Your task to perform on an android device: turn on translation in the chrome app Image 0: 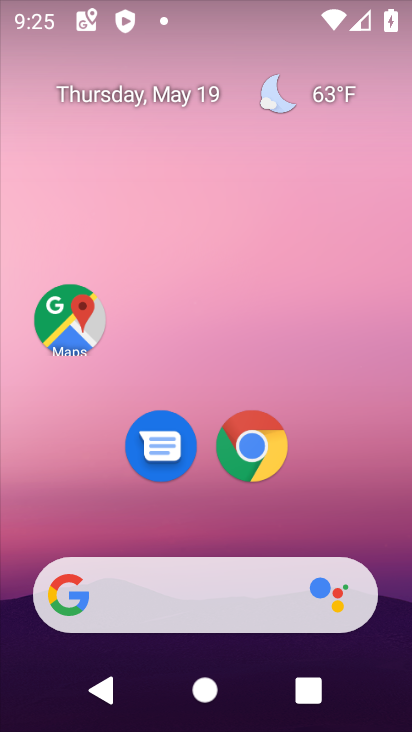
Step 0: click (255, 438)
Your task to perform on an android device: turn on translation in the chrome app Image 1: 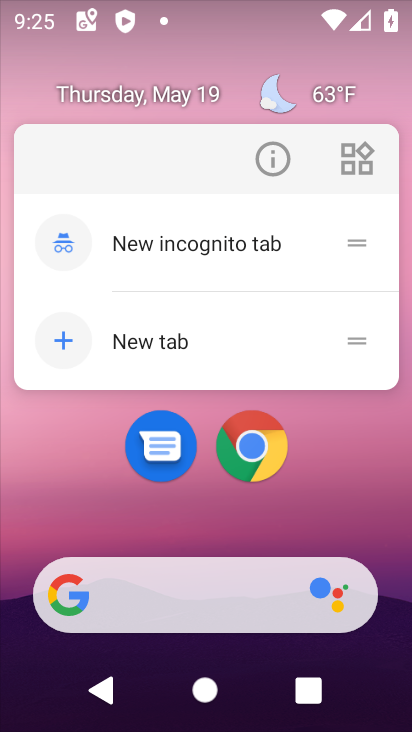
Step 1: click (250, 437)
Your task to perform on an android device: turn on translation in the chrome app Image 2: 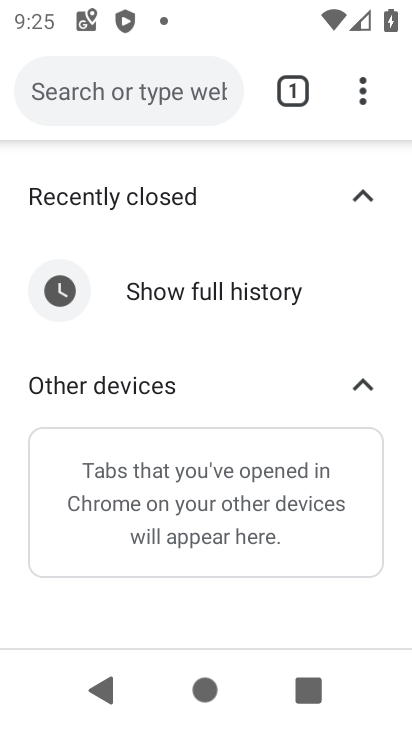
Step 2: click (365, 84)
Your task to perform on an android device: turn on translation in the chrome app Image 3: 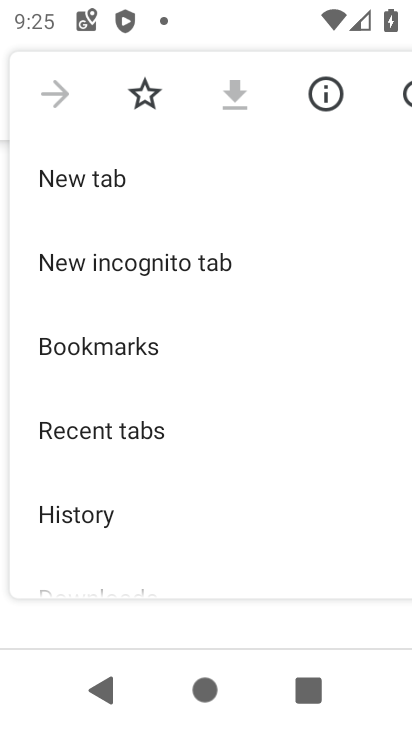
Step 3: drag from (111, 501) to (137, 231)
Your task to perform on an android device: turn on translation in the chrome app Image 4: 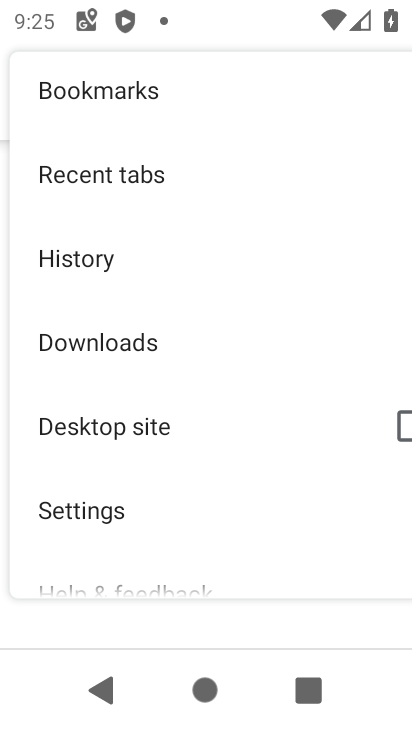
Step 4: click (97, 520)
Your task to perform on an android device: turn on translation in the chrome app Image 5: 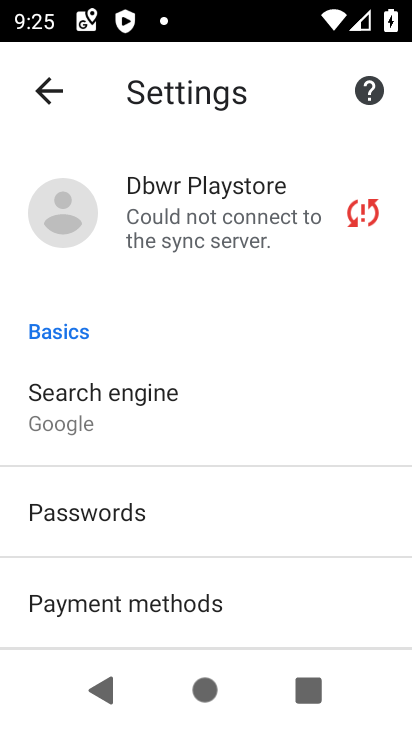
Step 5: drag from (208, 538) to (251, 150)
Your task to perform on an android device: turn on translation in the chrome app Image 6: 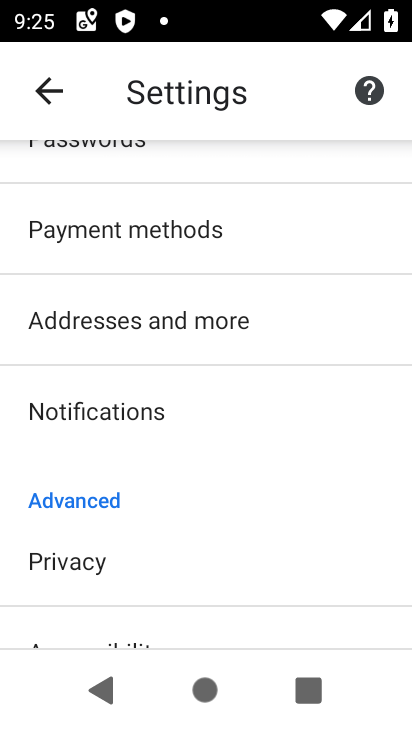
Step 6: drag from (129, 577) to (181, 307)
Your task to perform on an android device: turn on translation in the chrome app Image 7: 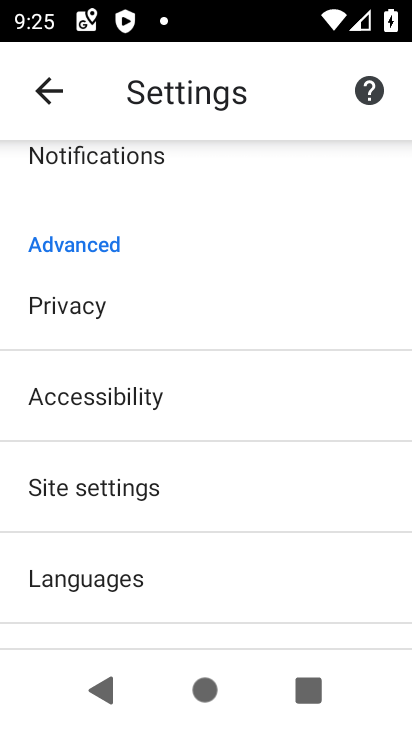
Step 7: drag from (142, 542) to (163, 416)
Your task to perform on an android device: turn on translation in the chrome app Image 8: 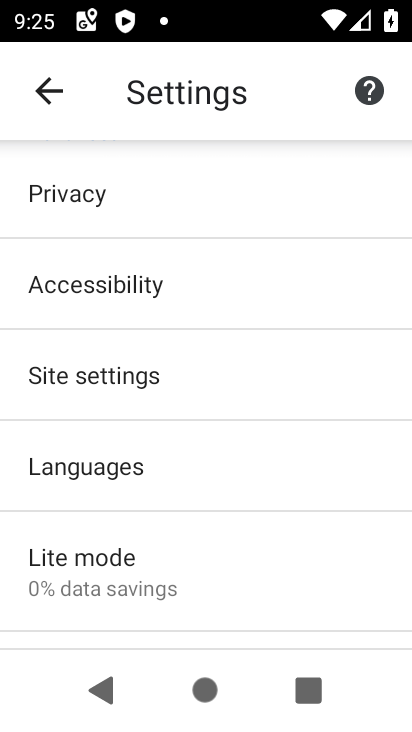
Step 8: click (85, 464)
Your task to perform on an android device: turn on translation in the chrome app Image 9: 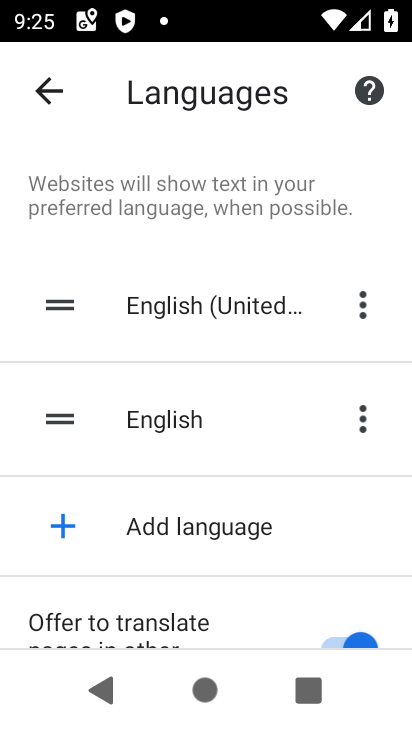
Step 9: task complete